Your task to perform on an android device: Open Android settings Image 0: 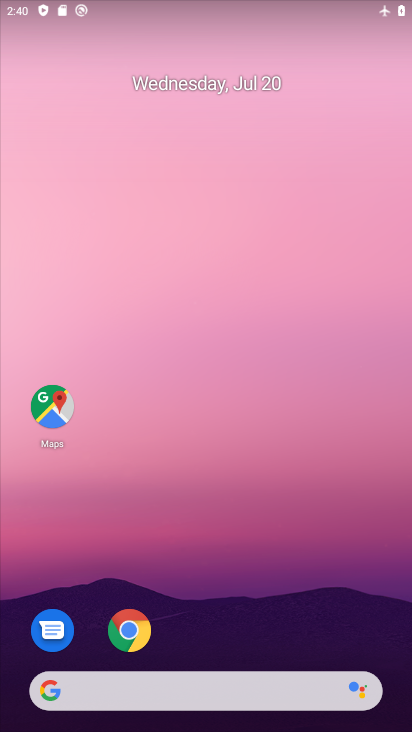
Step 0: drag from (231, 634) to (209, 231)
Your task to perform on an android device: Open Android settings Image 1: 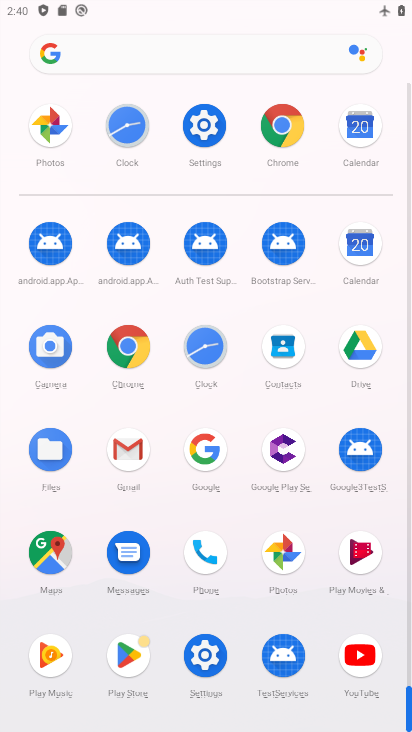
Step 1: click (288, 118)
Your task to perform on an android device: Open Android settings Image 2: 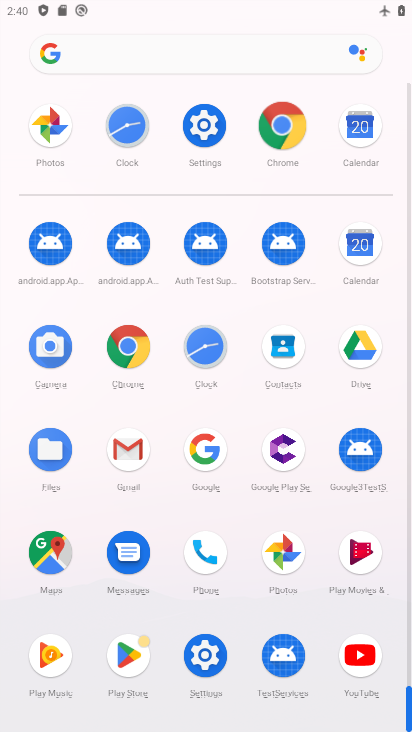
Step 2: click (288, 118)
Your task to perform on an android device: Open Android settings Image 3: 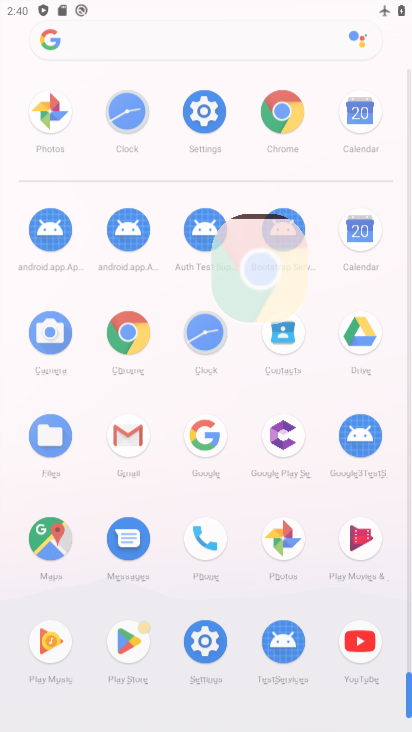
Step 3: click (291, 119)
Your task to perform on an android device: Open Android settings Image 4: 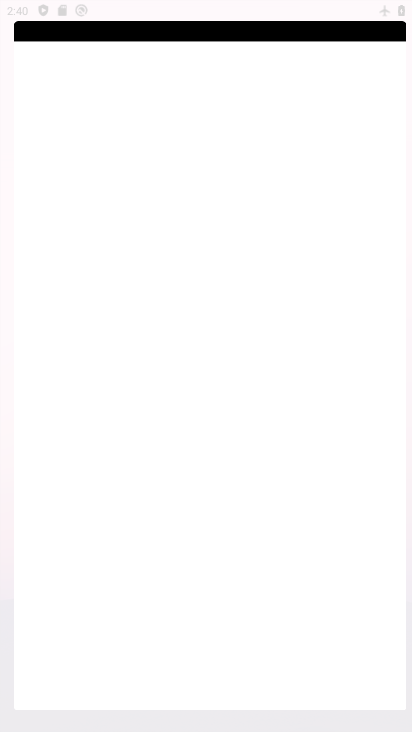
Step 4: click (292, 120)
Your task to perform on an android device: Open Android settings Image 5: 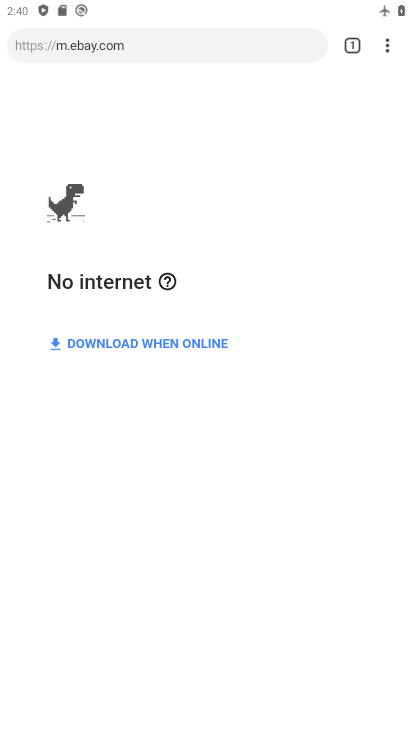
Step 5: drag from (387, 35) to (201, 497)
Your task to perform on an android device: Open Android settings Image 6: 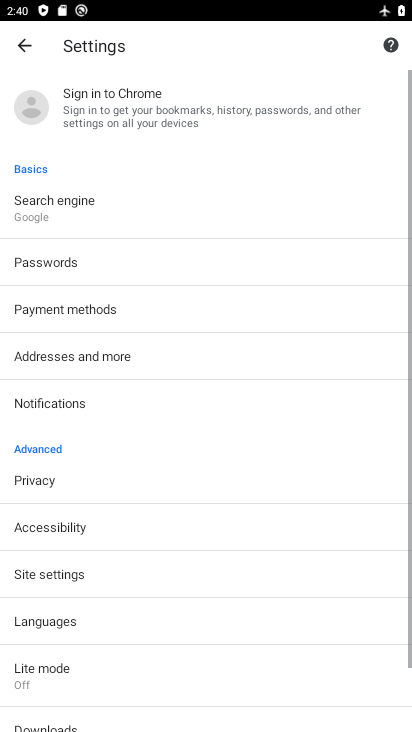
Step 6: press back button
Your task to perform on an android device: Open Android settings Image 7: 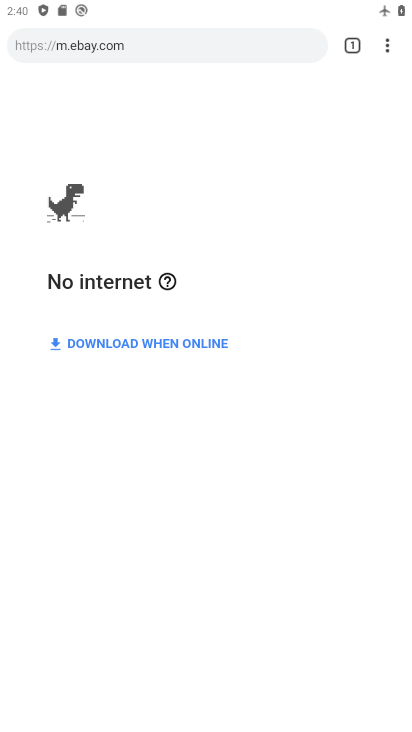
Step 7: click (21, 43)
Your task to perform on an android device: Open Android settings Image 8: 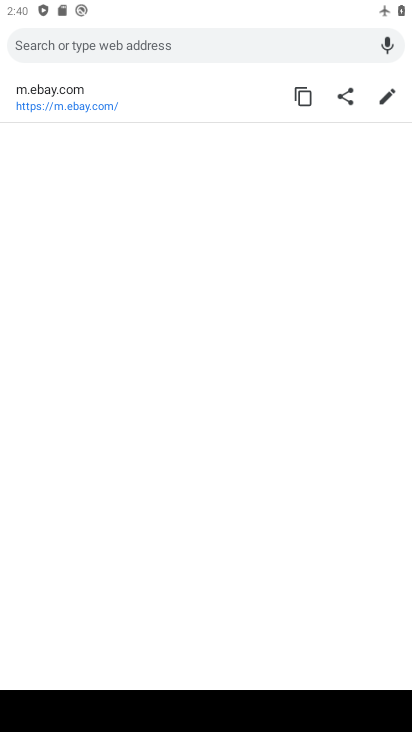
Step 8: press home button
Your task to perform on an android device: Open Android settings Image 9: 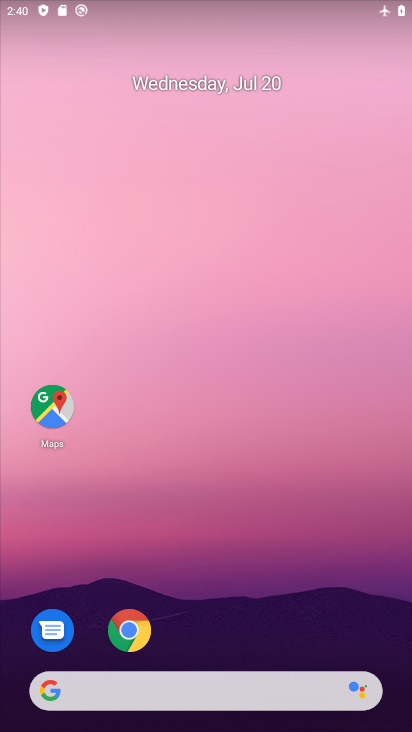
Step 9: click (207, 206)
Your task to perform on an android device: Open Android settings Image 10: 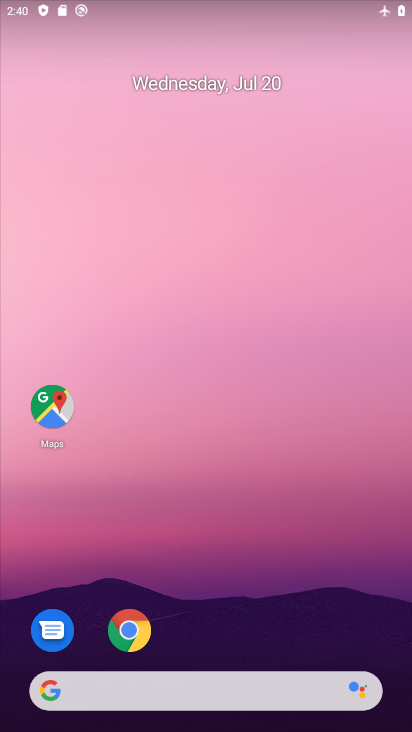
Step 10: drag from (239, 543) to (288, 3)
Your task to perform on an android device: Open Android settings Image 11: 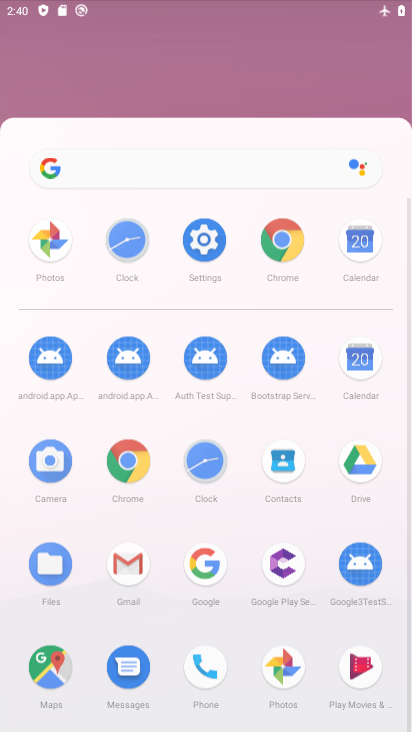
Step 11: click (286, 90)
Your task to perform on an android device: Open Android settings Image 12: 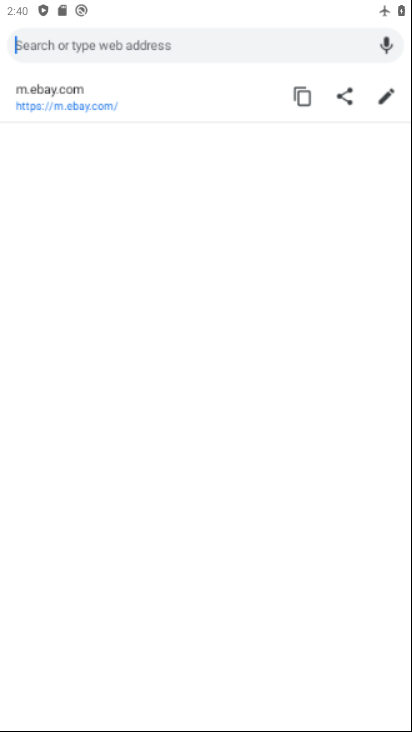
Step 12: click (204, 120)
Your task to perform on an android device: Open Android settings Image 13: 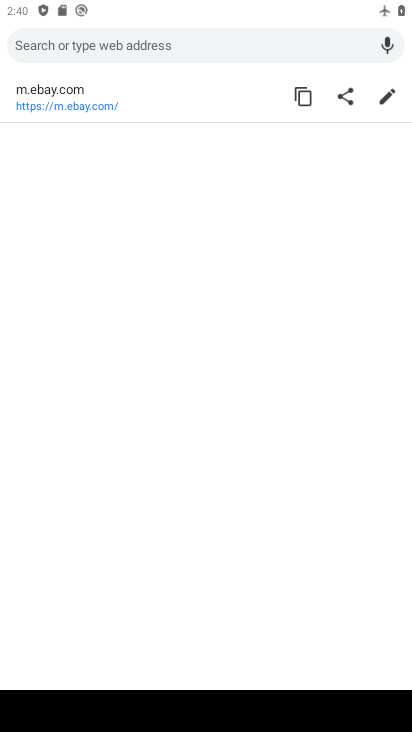
Step 13: press back button
Your task to perform on an android device: Open Android settings Image 14: 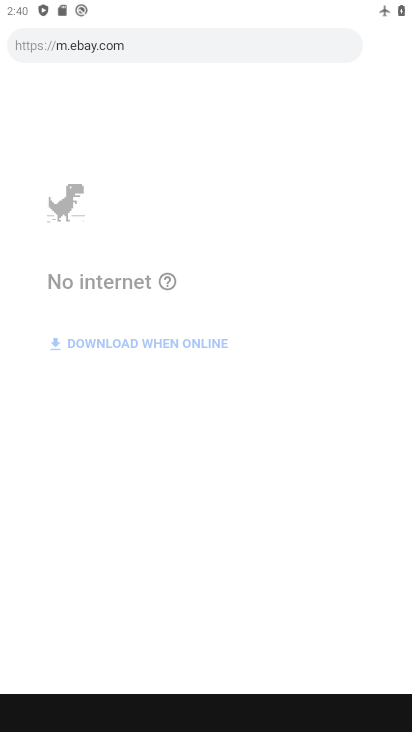
Step 14: press back button
Your task to perform on an android device: Open Android settings Image 15: 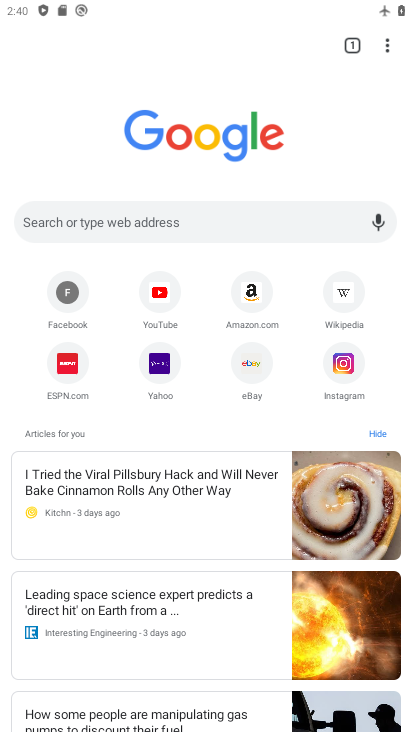
Step 15: press home button
Your task to perform on an android device: Open Android settings Image 16: 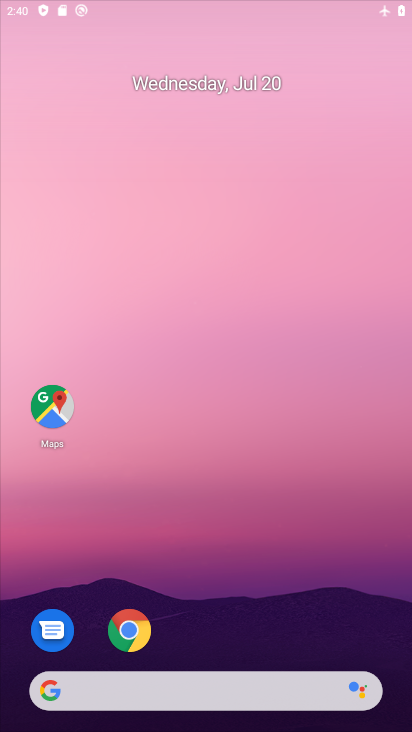
Step 16: drag from (227, 687) to (244, 187)
Your task to perform on an android device: Open Android settings Image 17: 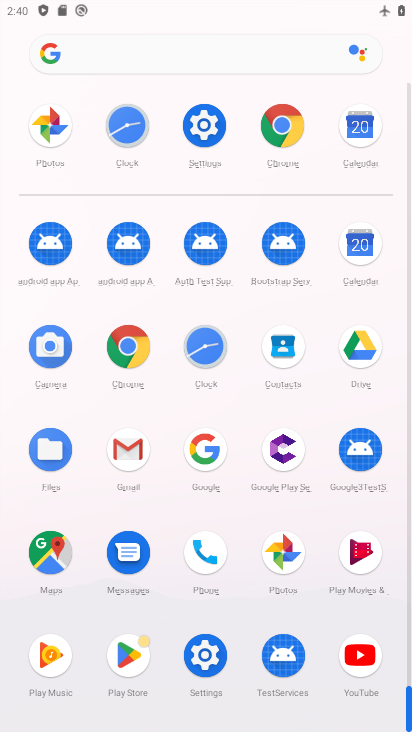
Step 17: click (212, 650)
Your task to perform on an android device: Open Android settings Image 18: 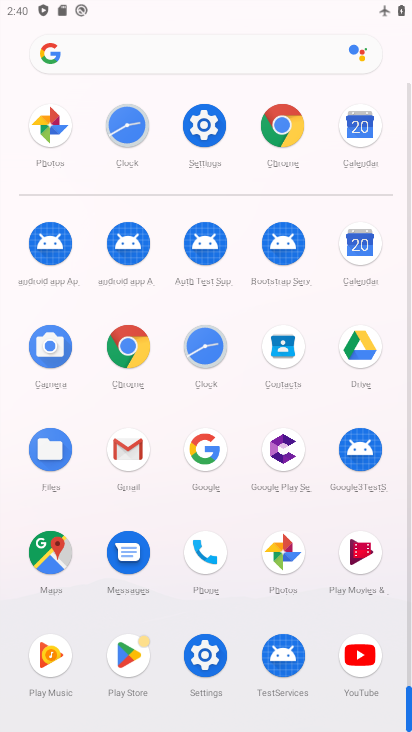
Step 18: click (212, 650)
Your task to perform on an android device: Open Android settings Image 19: 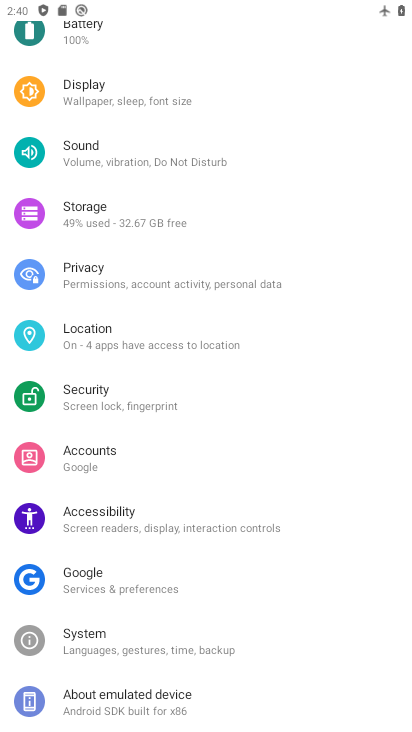
Step 19: drag from (145, 633) to (154, 212)
Your task to perform on an android device: Open Android settings Image 20: 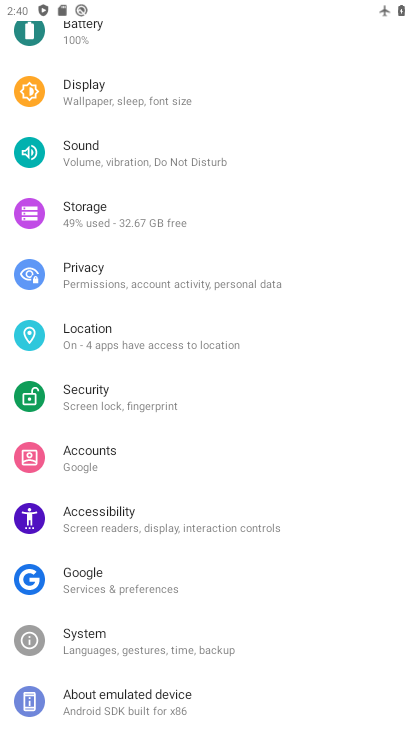
Step 20: drag from (151, 190) to (187, 557)
Your task to perform on an android device: Open Android settings Image 21: 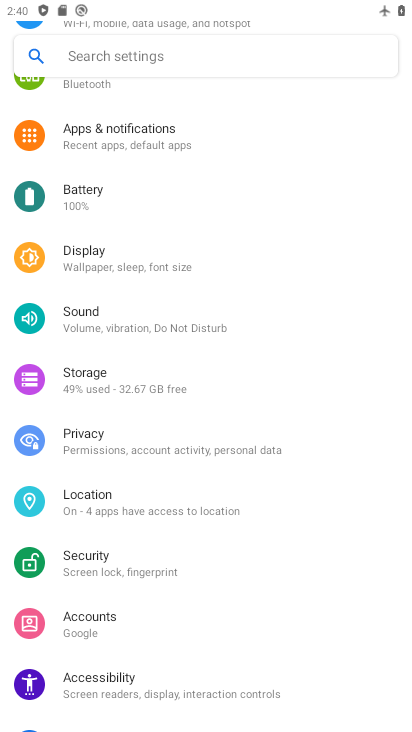
Step 21: drag from (185, 257) to (204, 574)
Your task to perform on an android device: Open Android settings Image 22: 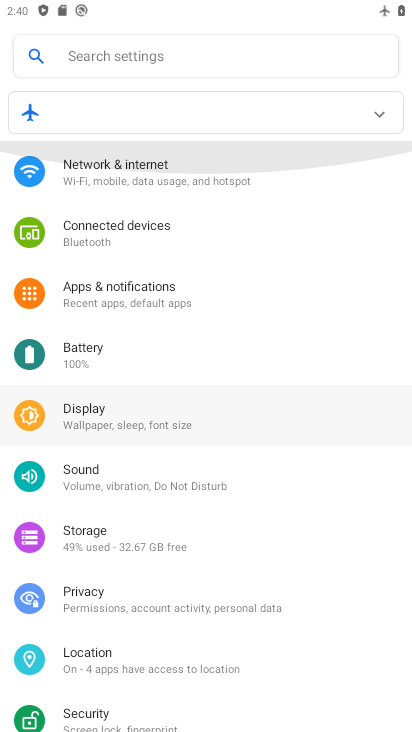
Step 22: drag from (198, 288) to (214, 631)
Your task to perform on an android device: Open Android settings Image 23: 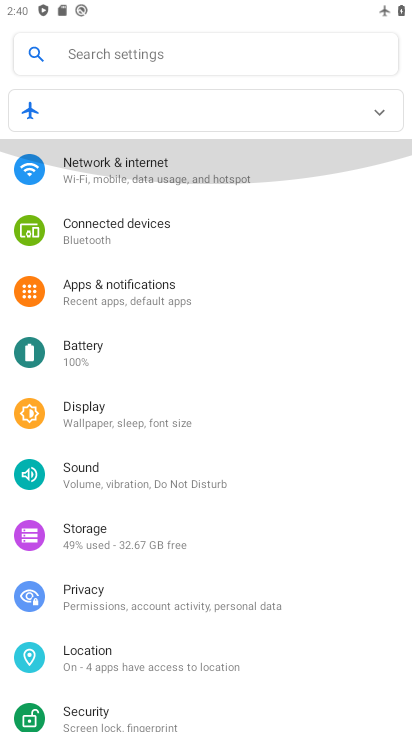
Step 23: drag from (153, 182) to (194, 484)
Your task to perform on an android device: Open Android settings Image 24: 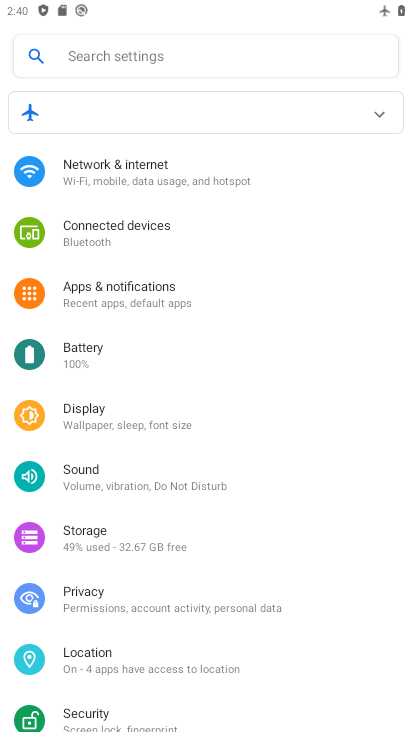
Step 24: drag from (206, 279) to (236, 457)
Your task to perform on an android device: Open Android settings Image 25: 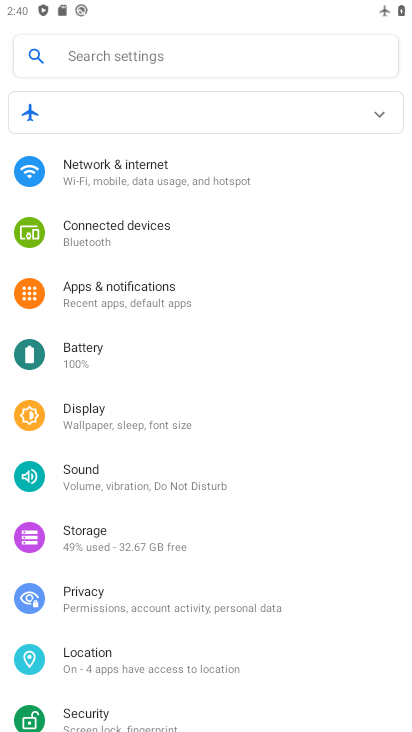
Step 25: drag from (152, 531) to (151, 206)
Your task to perform on an android device: Open Android settings Image 26: 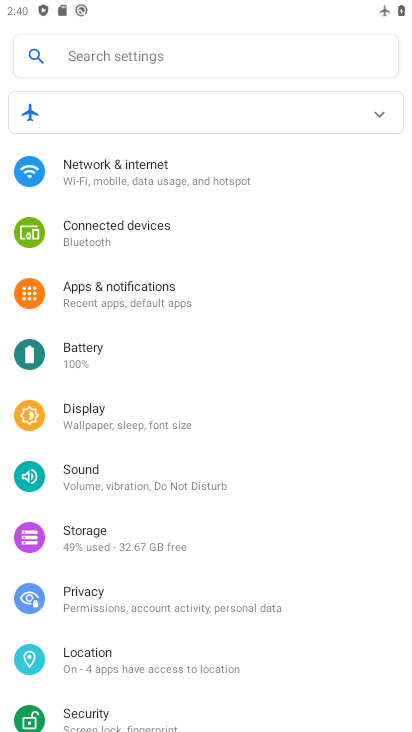
Step 26: drag from (176, 504) to (190, 162)
Your task to perform on an android device: Open Android settings Image 27: 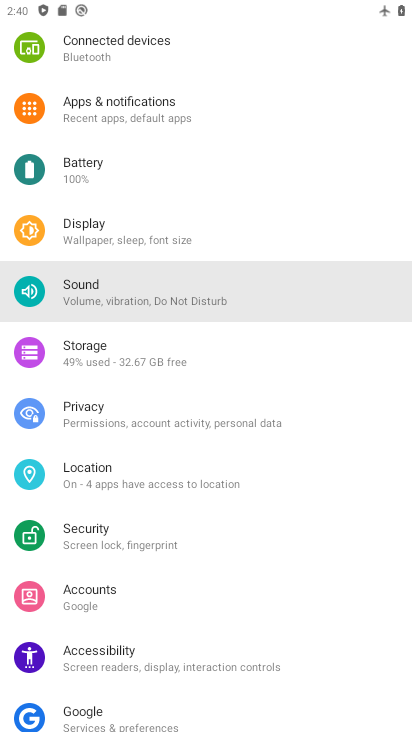
Step 27: drag from (205, 418) to (204, 178)
Your task to perform on an android device: Open Android settings Image 28: 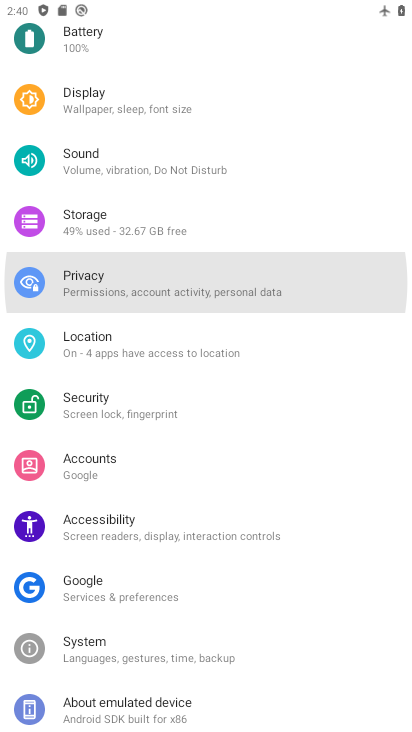
Step 28: drag from (121, 609) to (111, 312)
Your task to perform on an android device: Open Android settings Image 29: 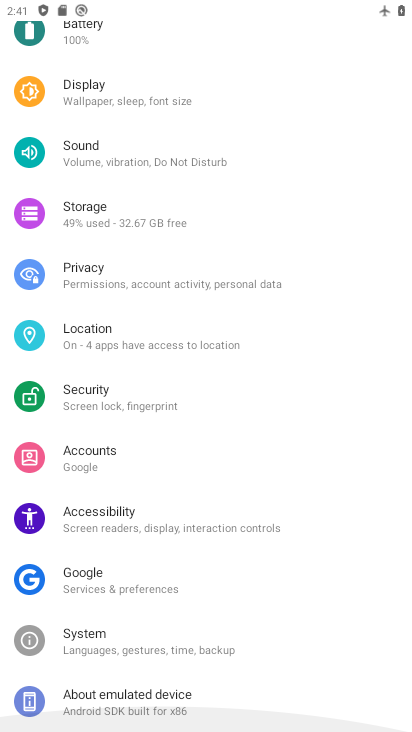
Step 29: drag from (122, 590) to (149, 359)
Your task to perform on an android device: Open Android settings Image 30: 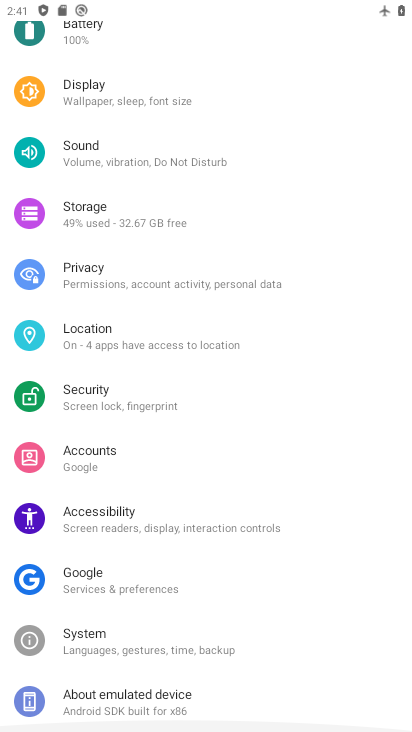
Step 30: click (104, 703)
Your task to perform on an android device: Open Android settings Image 31: 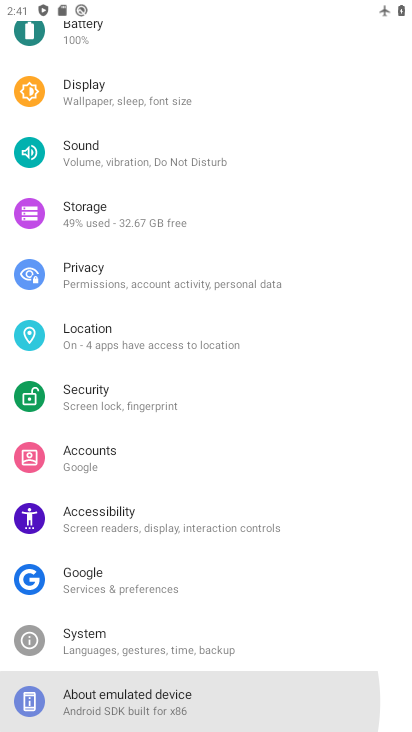
Step 31: click (105, 702)
Your task to perform on an android device: Open Android settings Image 32: 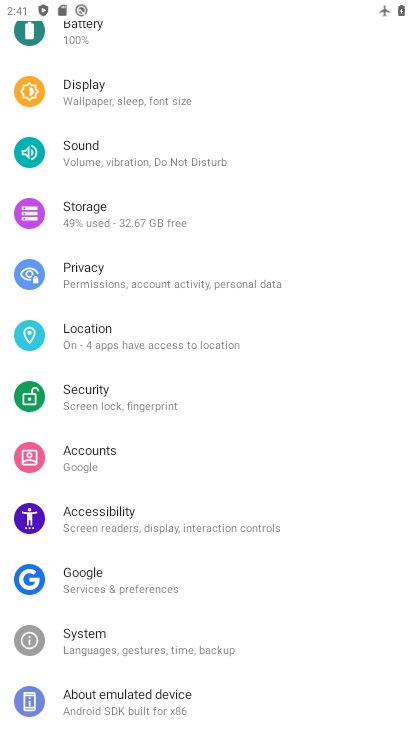
Step 32: click (110, 701)
Your task to perform on an android device: Open Android settings Image 33: 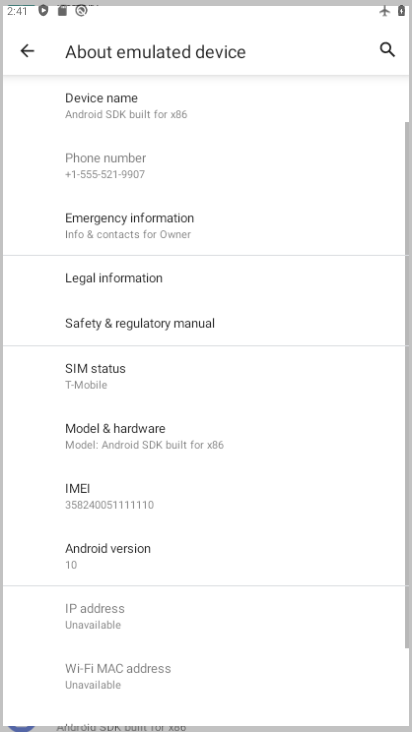
Step 33: click (115, 700)
Your task to perform on an android device: Open Android settings Image 34: 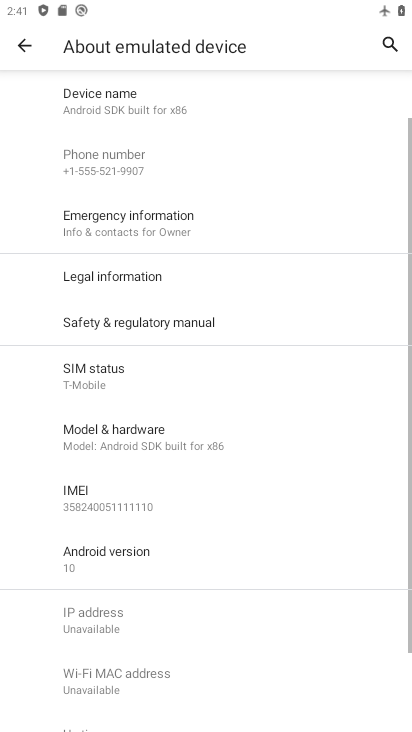
Step 34: task complete